Your task to perform on an android device: Open the map Image 0: 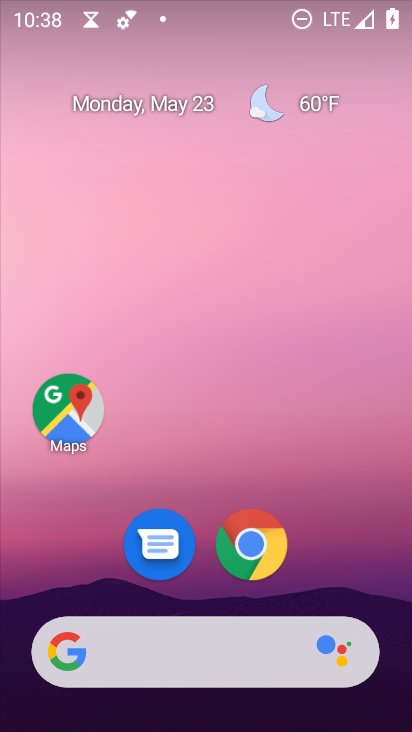
Step 0: click (72, 415)
Your task to perform on an android device: Open the map Image 1: 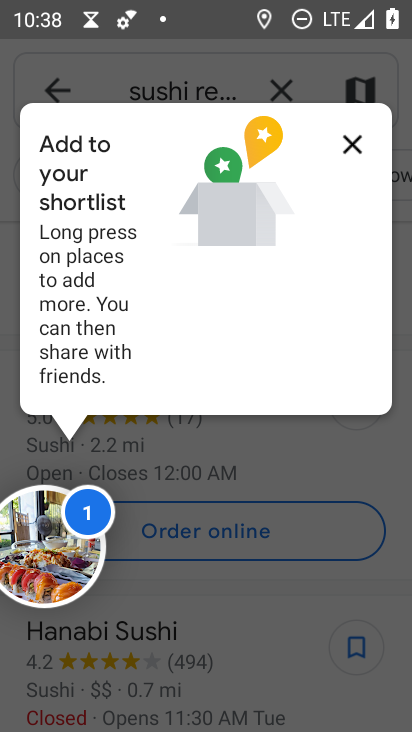
Step 1: press back button
Your task to perform on an android device: Open the map Image 2: 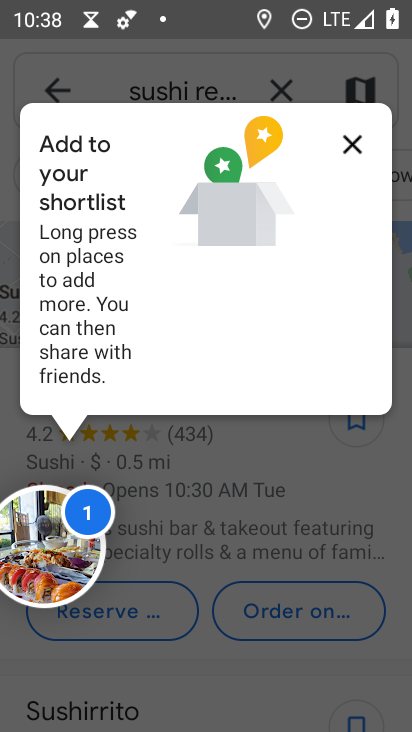
Step 2: click (353, 145)
Your task to perform on an android device: Open the map Image 3: 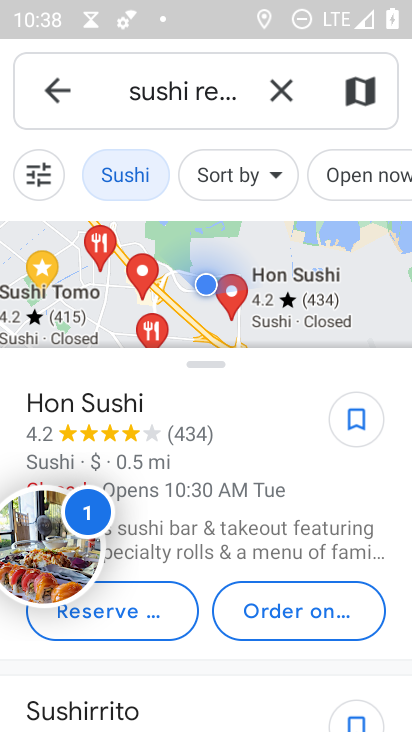
Step 3: press back button
Your task to perform on an android device: Open the map Image 4: 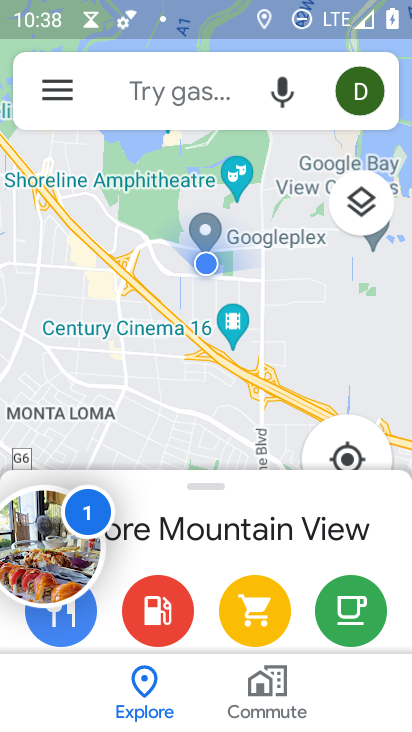
Step 4: drag from (60, 549) to (204, 666)
Your task to perform on an android device: Open the map Image 5: 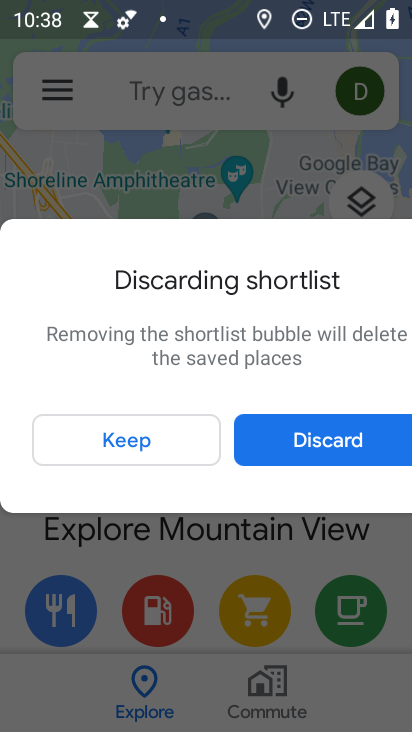
Step 5: click (344, 443)
Your task to perform on an android device: Open the map Image 6: 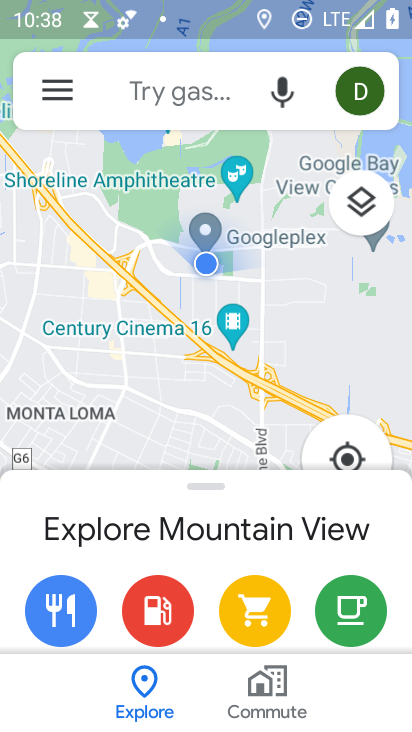
Step 6: task complete